Your task to perform on an android device: Open the calendar and show me this week's events? Image 0: 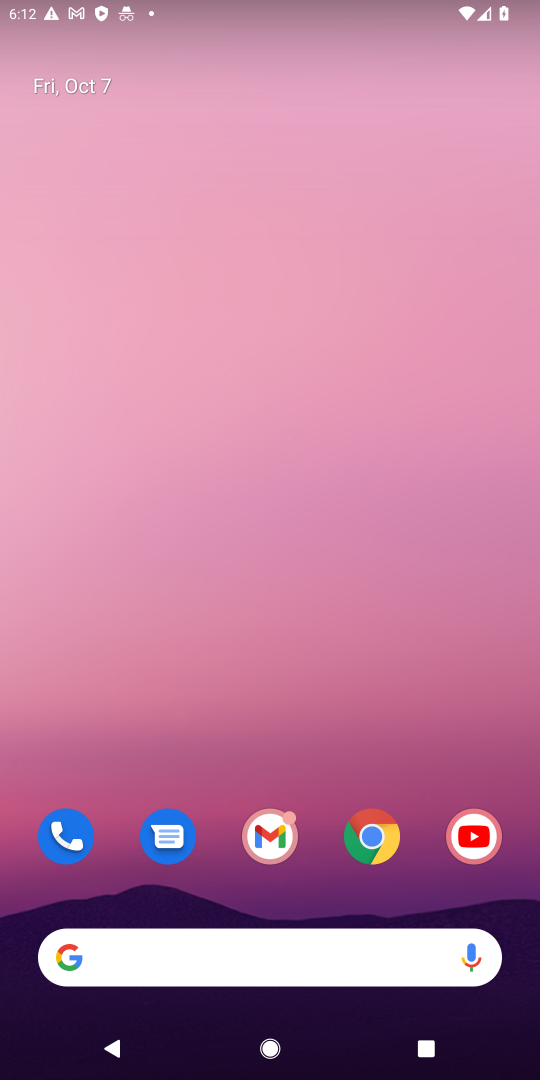
Step 0: drag from (227, 898) to (253, 20)
Your task to perform on an android device: Open the calendar and show me this week's events? Image 1: 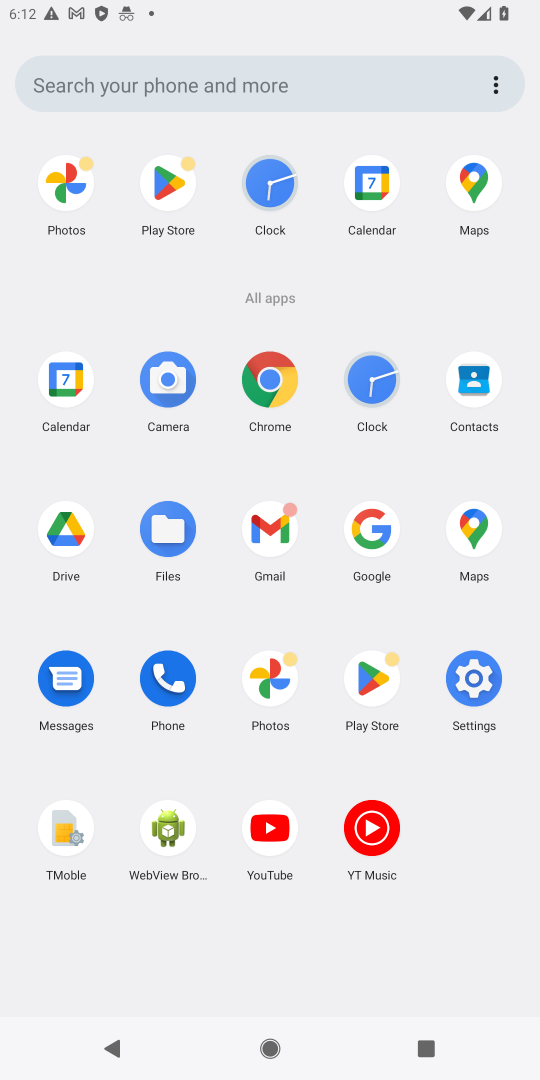
Step 1: click (379, 183)
Your task to perform on an android device: Open the calendar and show me this week's events? Image 2: 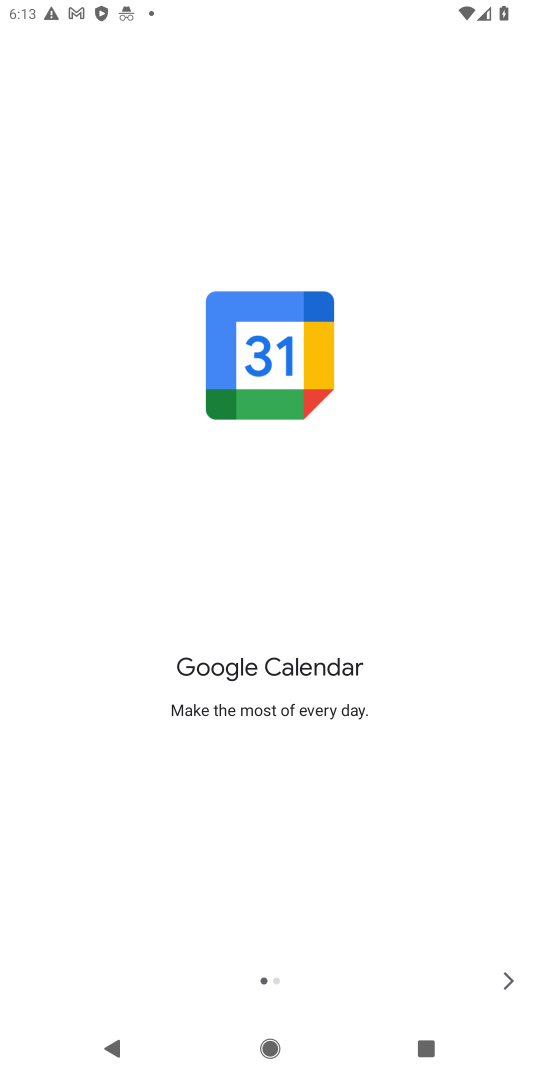
Step 2: click (499, 976)
Your task to perform on an android device: Open the calendar and show me this week's events? Image 3: 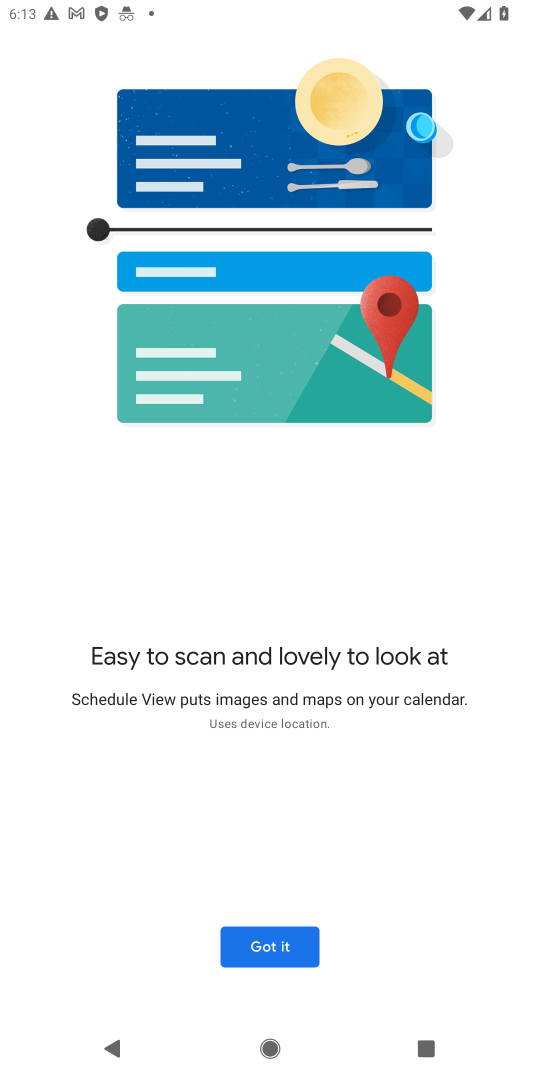
Step 3: click (302, 950)
Your task to perform on an android device: Open the calendar and show me this week's events? Image 4: 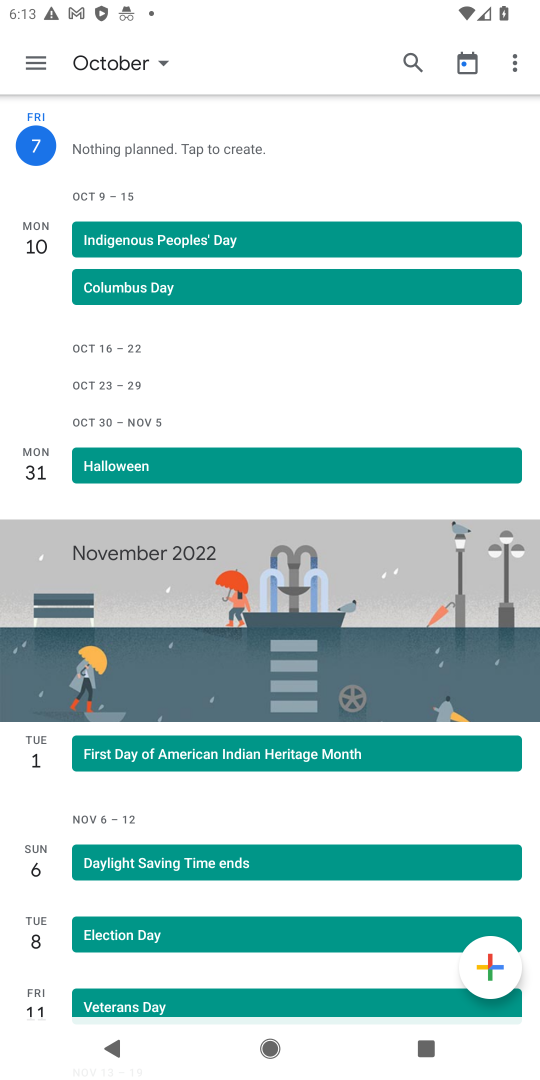
Step 4: task complete